Your task to perform on an android device: Open notification settings Image 0: 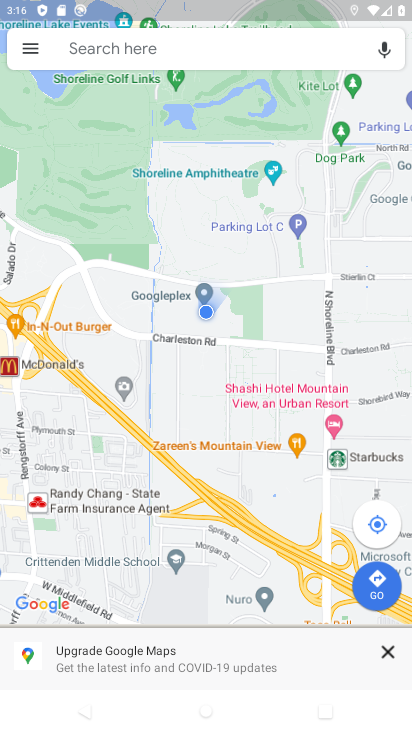
Step 0: press home button
Your task to perform on an android device: Open notification settings Image 1: 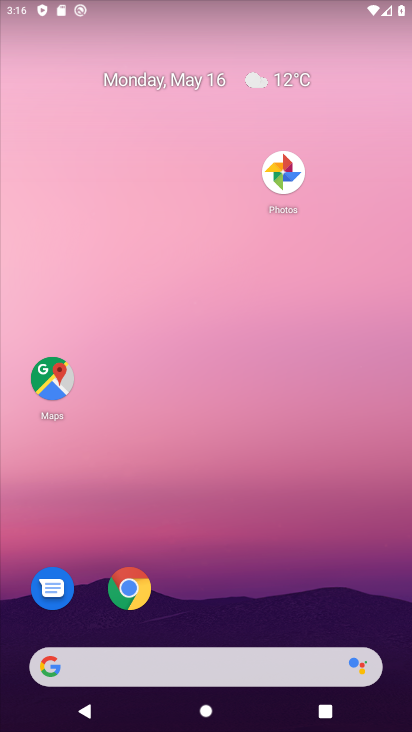
Step 1: drag from (180, 621) to (208, 20)
Your task to perform on an android device: Open notification settings Image 2: 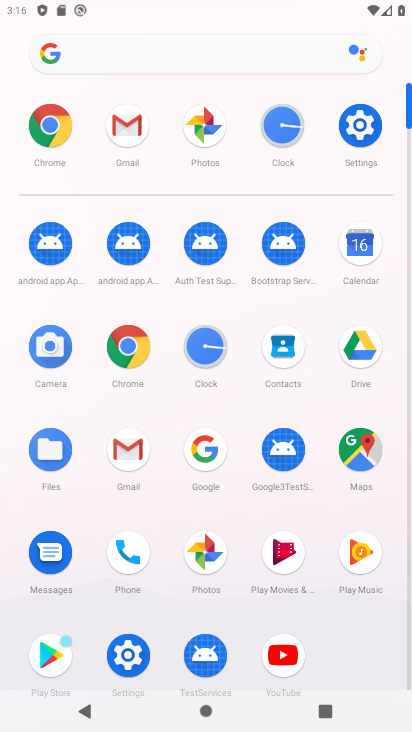
Step 2: click (344, 121)
Your task to perform on an android device: Open notification settings Image 3: 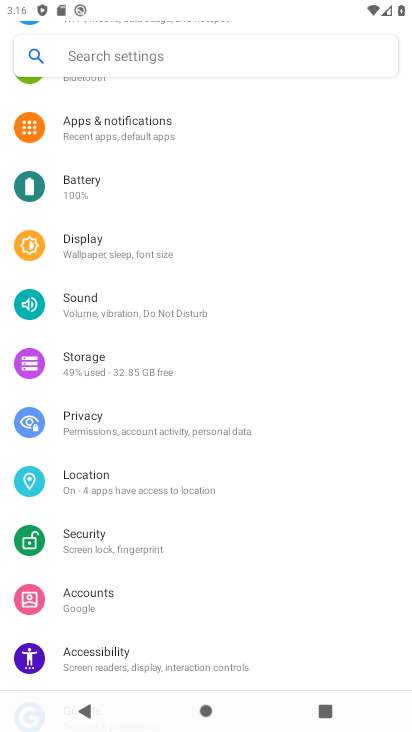
Step 3: click (148, 129)
Your task to perform on an android device: Open notification settings Image 4: 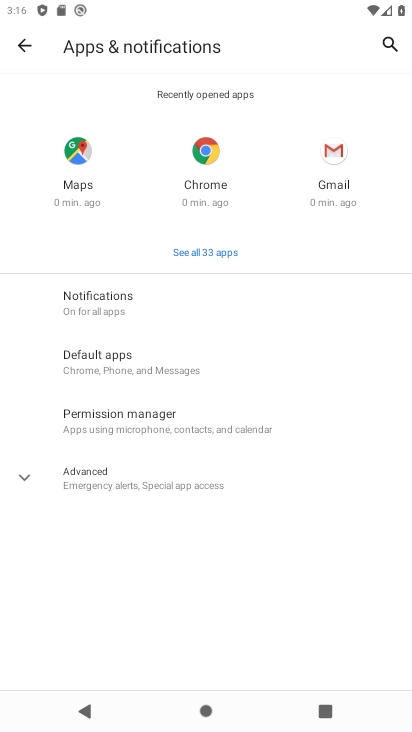
Step 4: task complete